Your task to perform on an android device: toggle location history Image 0: 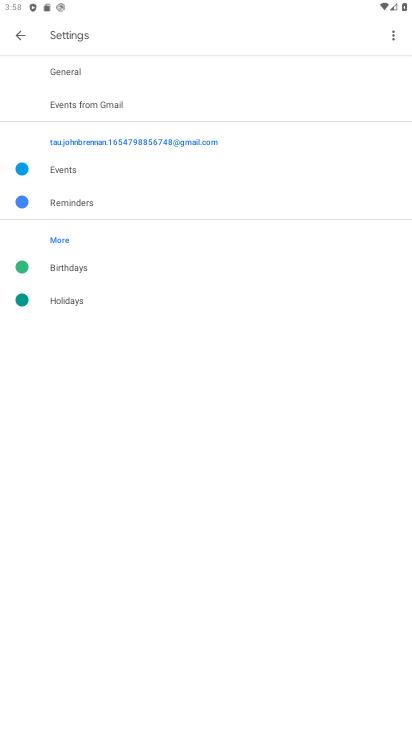
Step 0: press home button
Your task to perform on an android device: toggle location history Image 1: 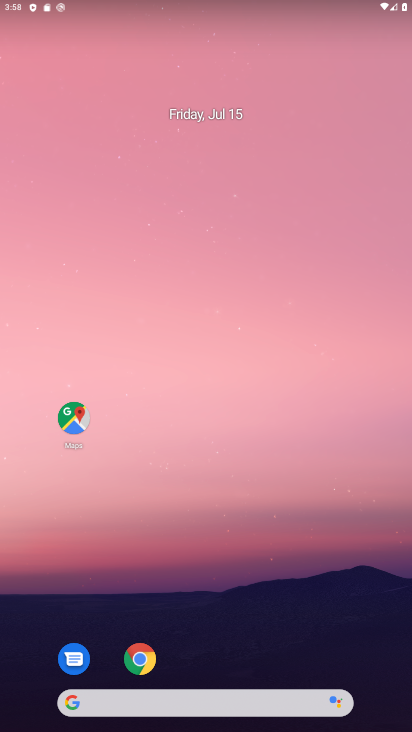
Step 1: drag from (273, 655) to (316, 113)
Your task to perform on an android device: toggle location history Image 2: 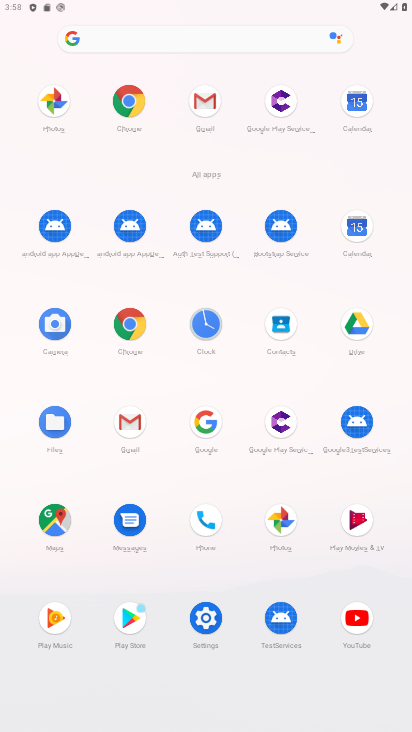
Step 2: click (204, 608)
Your task to perform on an android device: toggle location history Image 3: 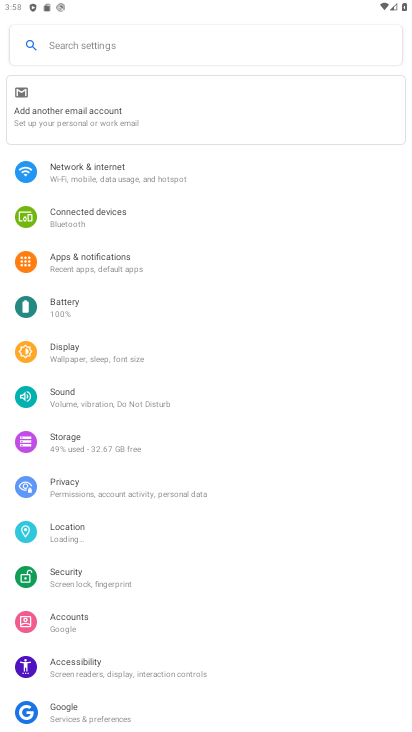
Step 3: click (93, 527)
Your task to perform on an android device: toggle location history Image 4: 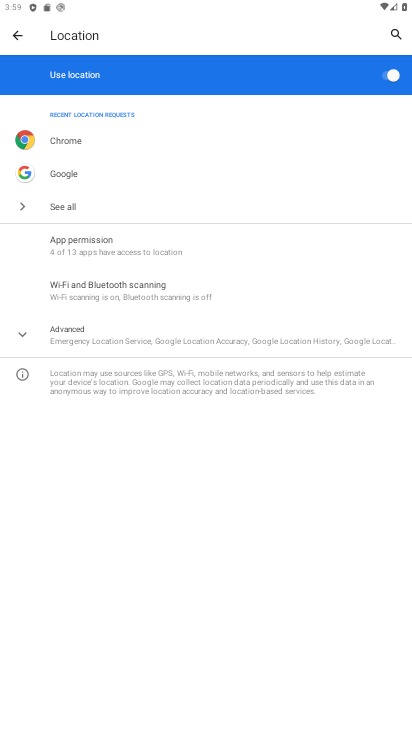
Step 4: click (133, 328)
Your task to perform on an android device: toggle location history Image 5: 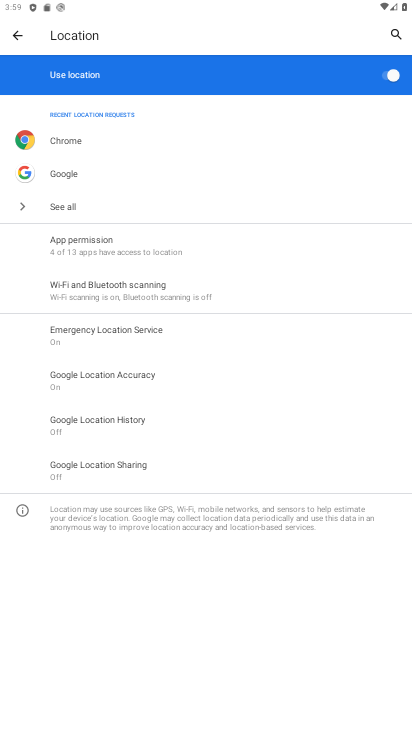
Step 5: click (114, 426)
Your task to perform on an android device: toggle location history Image 6: 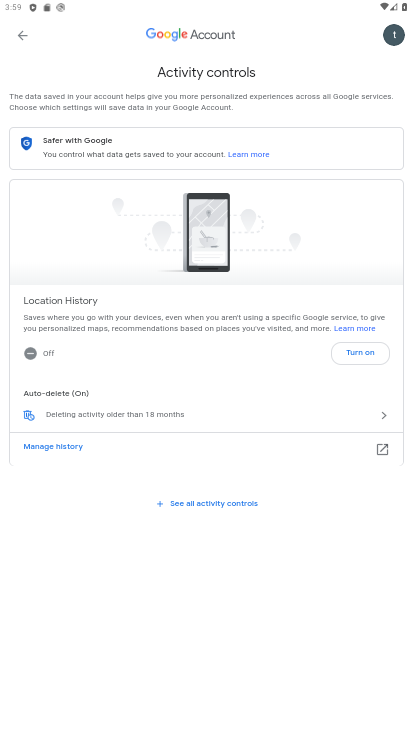
Step 6: click (377, 351)
Your task to perform on an android device: toggle location history Image 7: 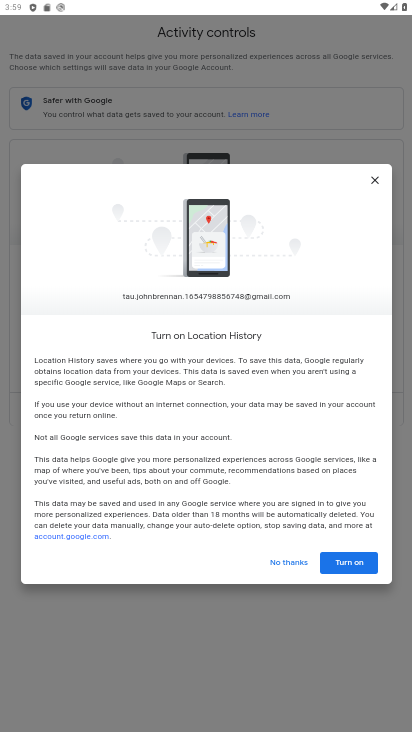
Step 7: drag from (295, 491) to (335, 151)
Your task to perform on an android device: toggle location history Image 8: 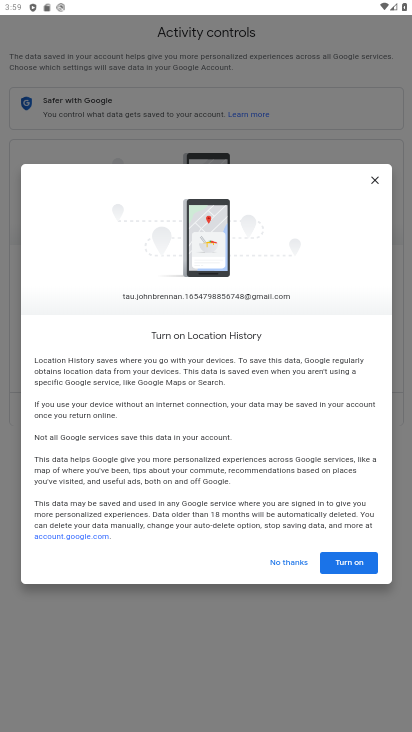
Step 8: drag from (281, 455) to (286, 241)
Your task to perform on an android device: toggle location history Image 9: 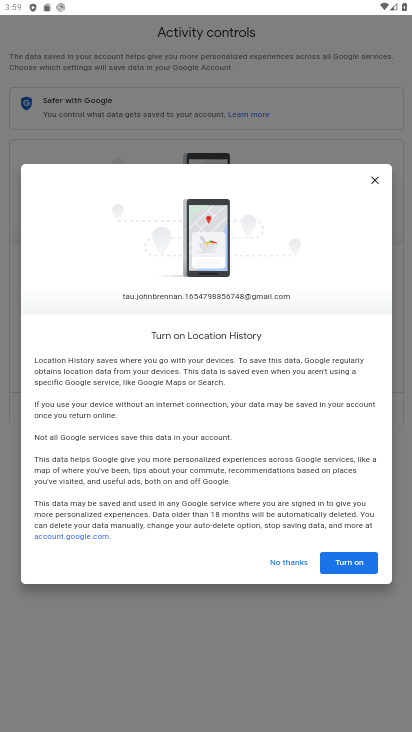
Step 9: click (359, 565)
Your task to perform on an android device: toggle location history Image 10: 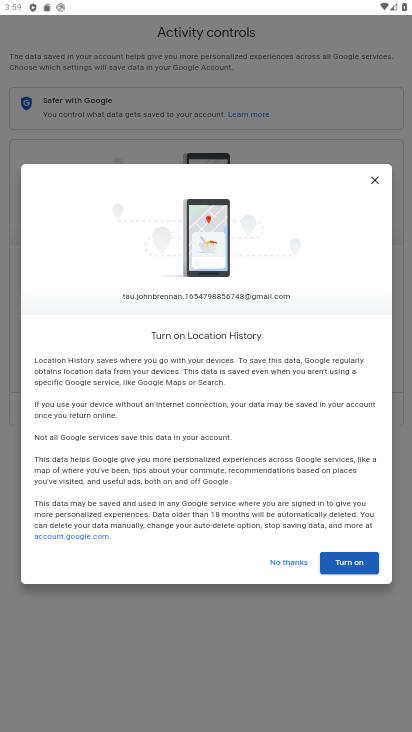
Step 10: click (348, 567)
Your task to perform on an android device: toggle location history Image 11: 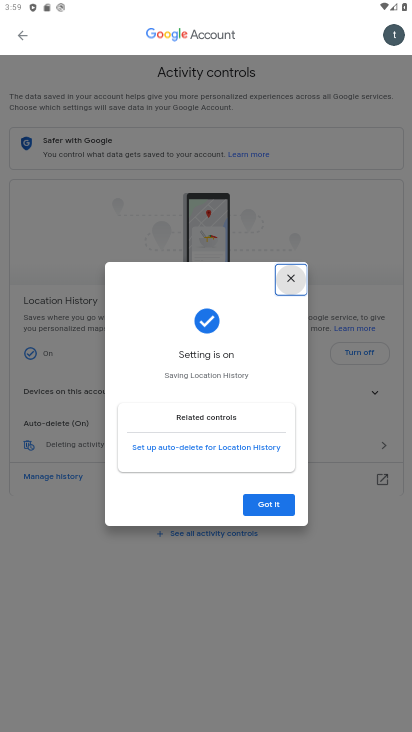
Step 11: task complete